Your task to perform on an android device: turn on priority inbox in the gmail app Image 0: 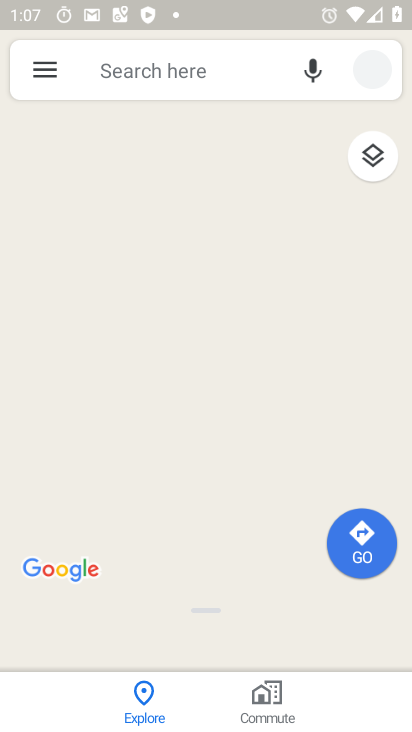
Step 0: press home button
Your task to perform on an android device: turn on priority inbox in the gmail app Image 1: 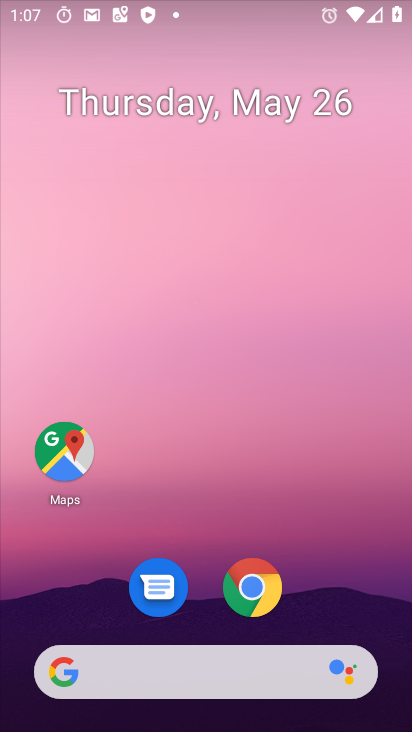
Step 1: drag from (268, 691) to (189, 110)
Your task to perform on an android device: turn on priority inbox in the gmail app Image 2: 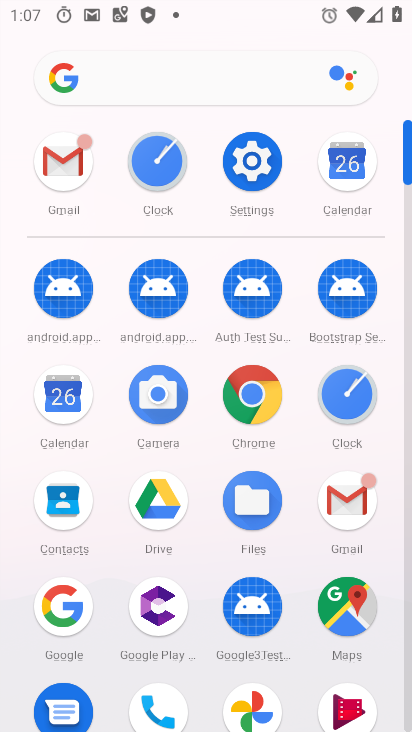
Step 2: click (78, 175)
Your task to perform on an android device: turn on priority inbox in the gmail app Image 3: 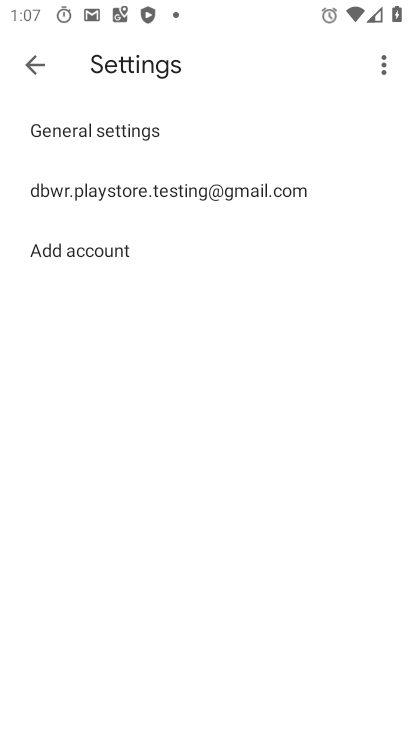
Step 3: click (124, 193)
Your task to perform on an android device: turn on priority inbox in the gmail app Image 4: 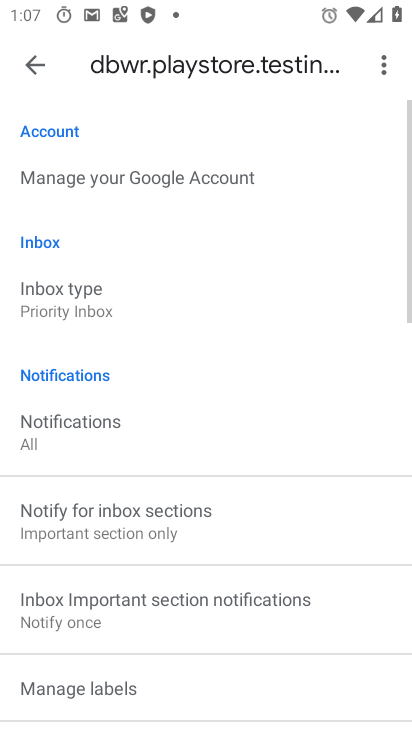
Step 4: click (77, 292)
Your task to perform on an android device: turn on priority inbox in the gmail app Image 5: 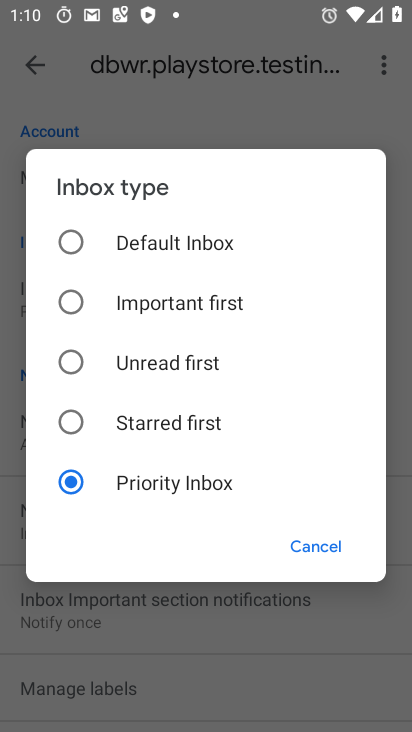
Step 5: task complete